Your task to perform on an android device: Go to Android settings Image 0: 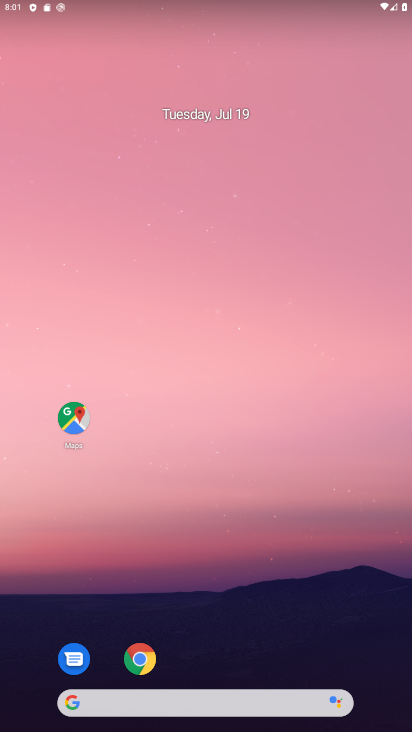
Step 0: drag from (319, 617) to (387, 39)
Your task to perform on an android device: Go to Android settings Image 1: 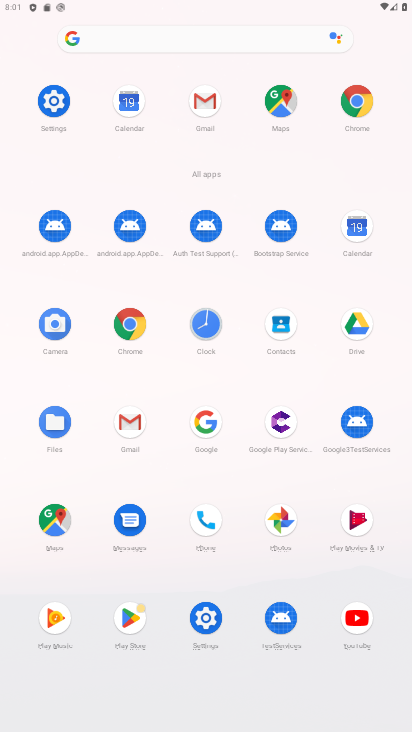
Step 1: click (191, 625)
Your task to perform on an android device: Go to Android settings Image 2: 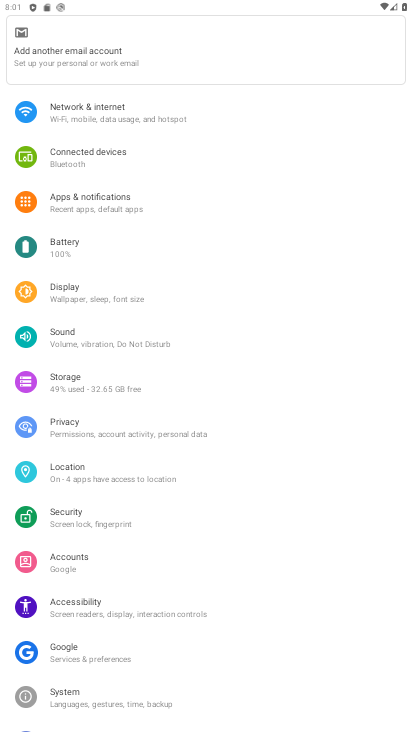
Step 2: drag from (191, 625) to (400, 59)
Your task to perform on an android device: Go to Android settings Image 3: 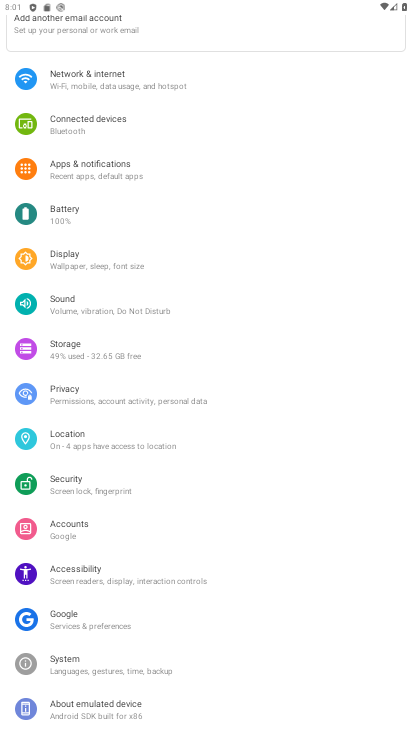
Step 3: click (95, 702)
Your task to perform on an android device: Go to Android settings Image 4: 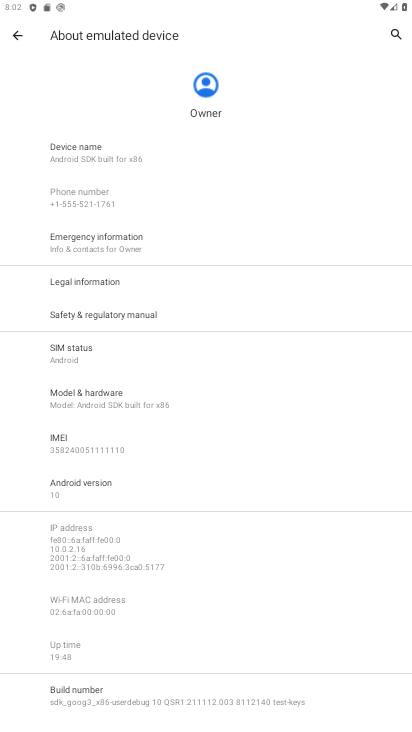
Step 4: click (70, 480)
Your task to perform on an android device: Go to Android settings Image 5: 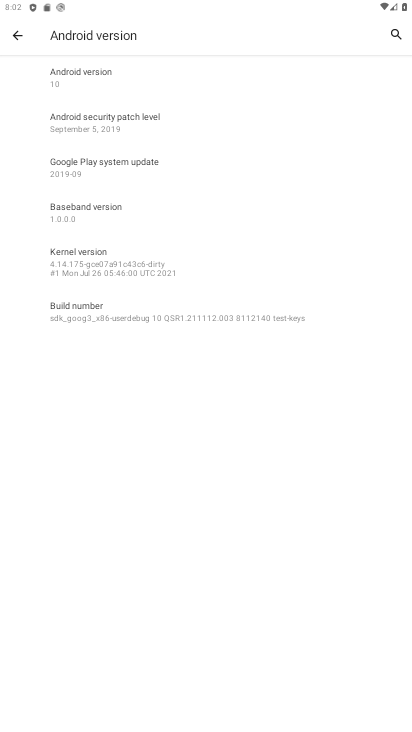
Step 5: task complete